Your task to perform on an android device: Go to internet settings Image 0: 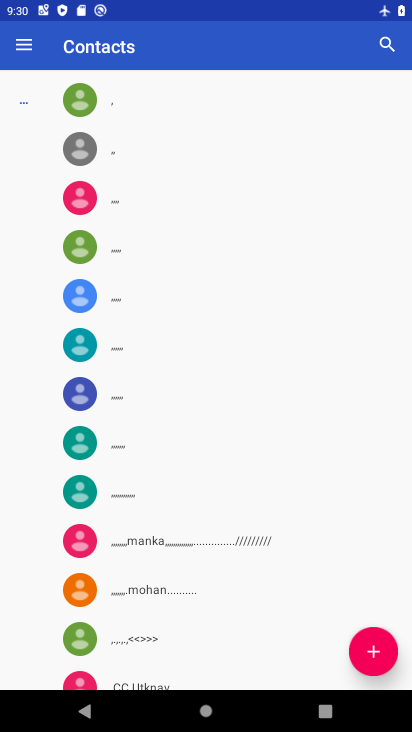
Step 0: press home button
Your task to perform on an android device: Go to internet settings Image 1: 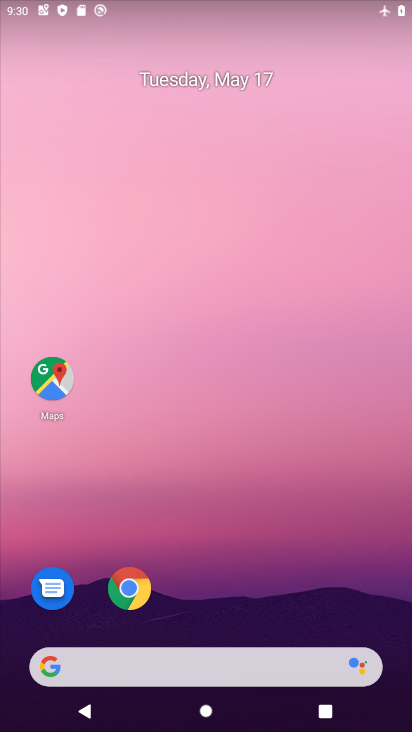
Step 1: drag from (220, 632) to (195, 14)
Your task to perform on an android device: Go to internet settings Image 2: 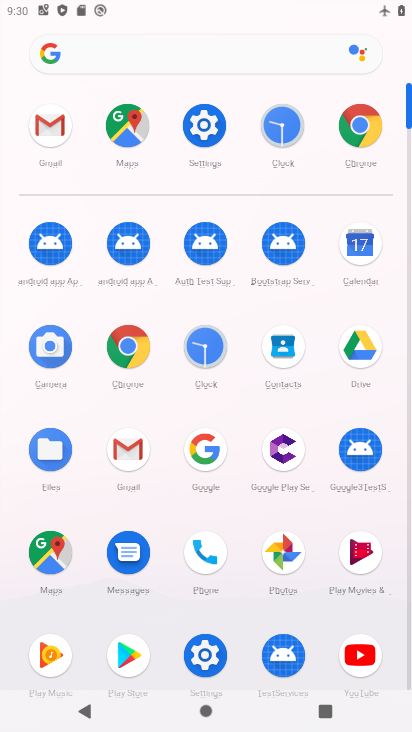
Step 2: click (202, 138)
Your task to perform on an android device: Go to internet settings Image 3: 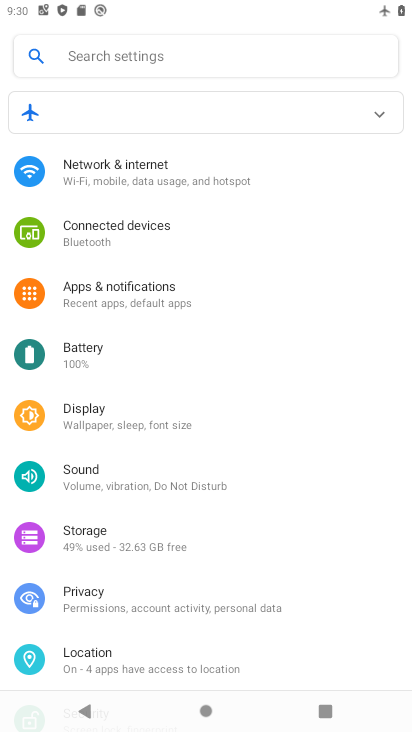
Step 3: click (158, 195)
Your task to perform on an android device: Go to internet settings Image 4: 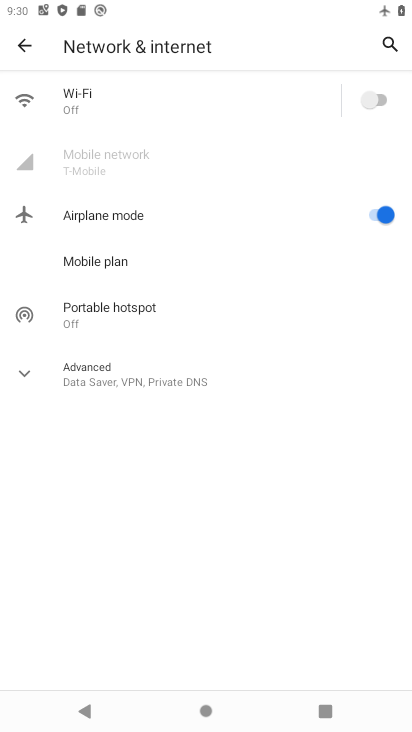
Step 4: click (87, 356)
Your task to perform on an android device: Go to internet settings Image 5: 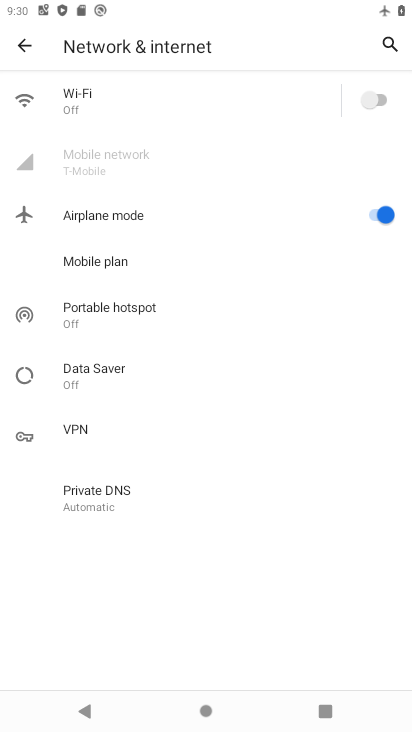
Step 5: task complete